Your task to perform on an android device: Go to location settings Image 0: 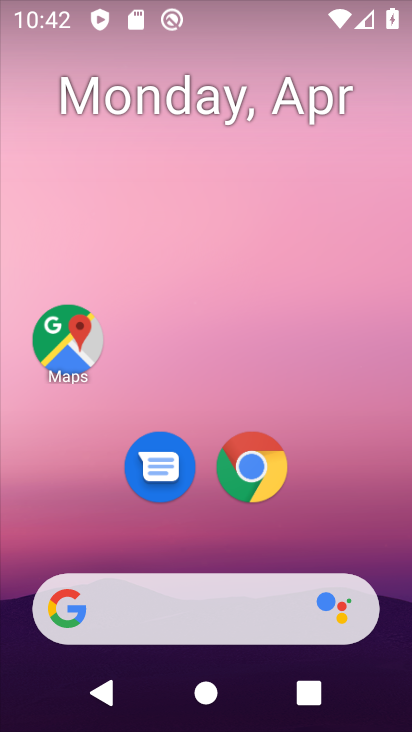
Step 0: drag from (208, 538) to (219, 92)
Your task to perform on an android device: Go to location settings Image 1: 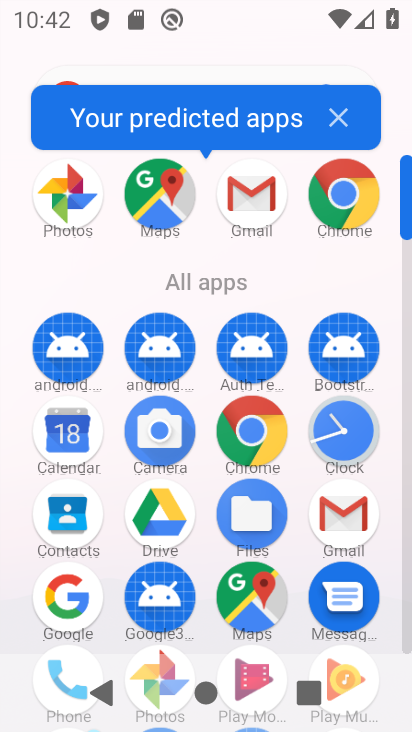
Step 1: drag from (203, 625) to (216, 169)
Your task to perform on an android device: Go to location settings Image 2: 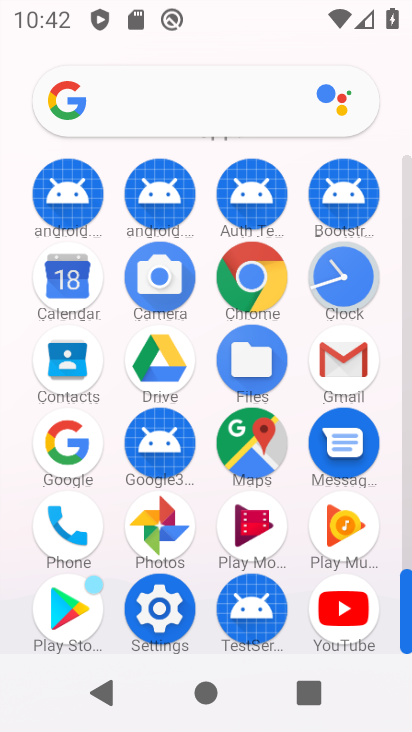
Step 2: click (158, 621)
Your task to perform on an android device: Go to location settings Image 3: 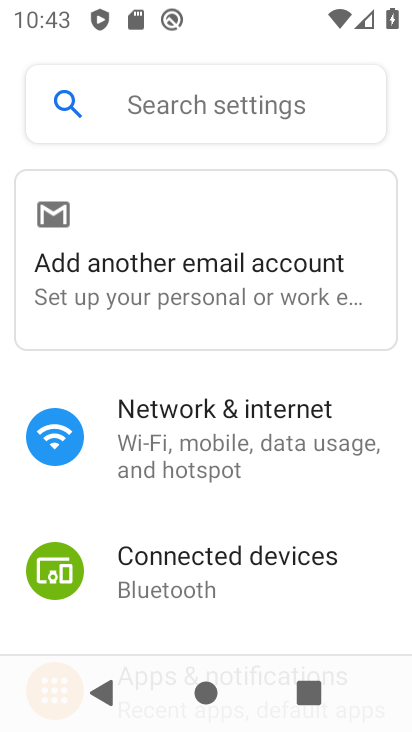
Step 3: drag from (233, 608) to (184, 144)
Your task to perform on an android device: Go to location settings Image 4: 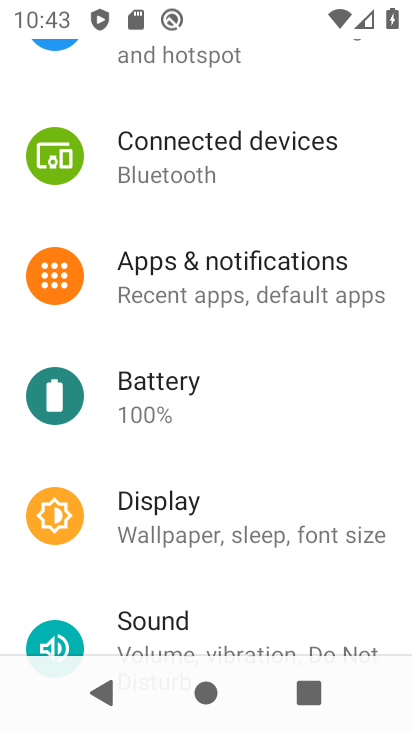
Step 4: drag from (261, 597) to (240, 103)
Your task to perform on an android device: Go to location settings Image 5: 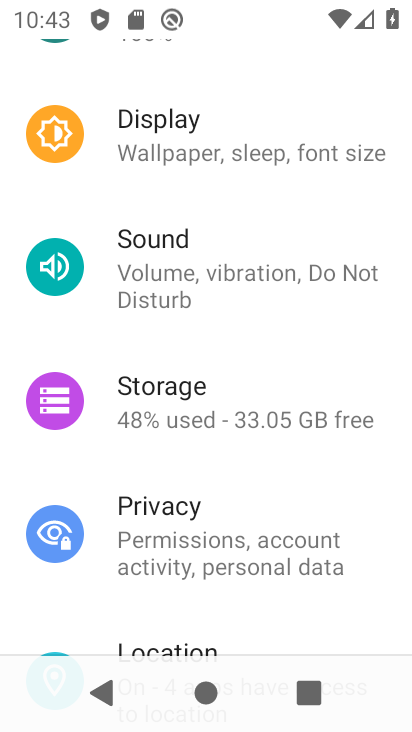
Step 5: drag from (253, 622) to (201, 221)
Your task to perform on an android device: Go to location settings Image 6: 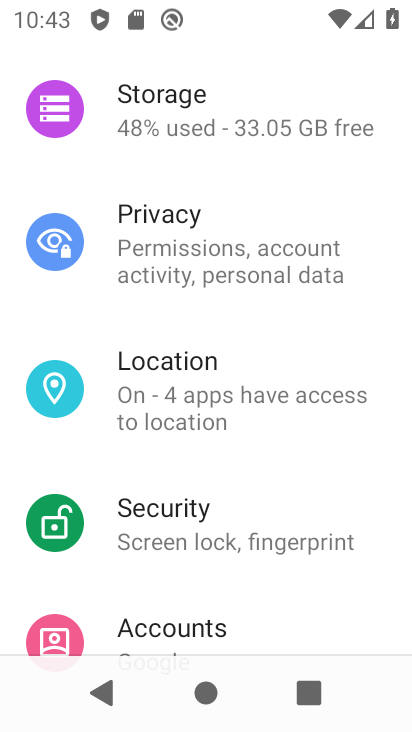
Step 6: click (207, 392)
Your task to perform on an android device: Go to location settings Image 7: 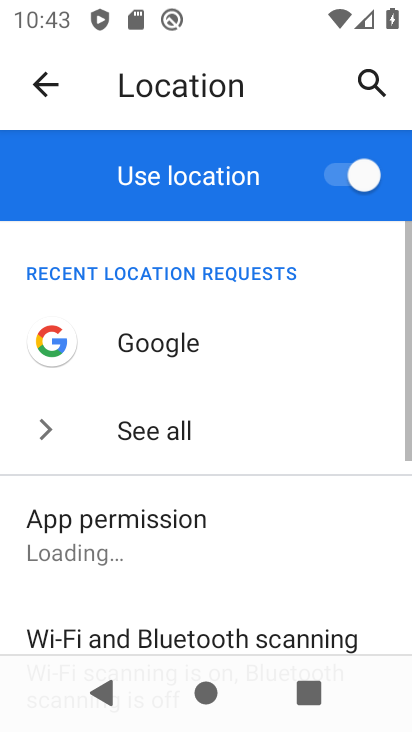
Step 7: task complete